Your task to perform on an android device: Is it going to rain tomorrow? Image 0: 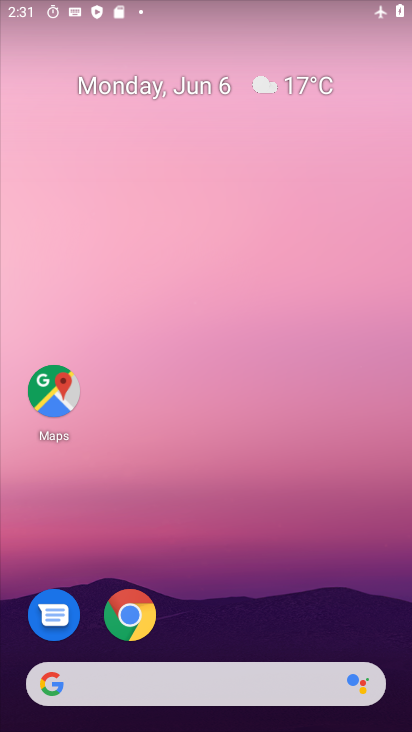
Step 0: drag from (206, 649) to (267, 255)
Your task to perform on an android device: Is it going to rain tomorrow? Image 1: 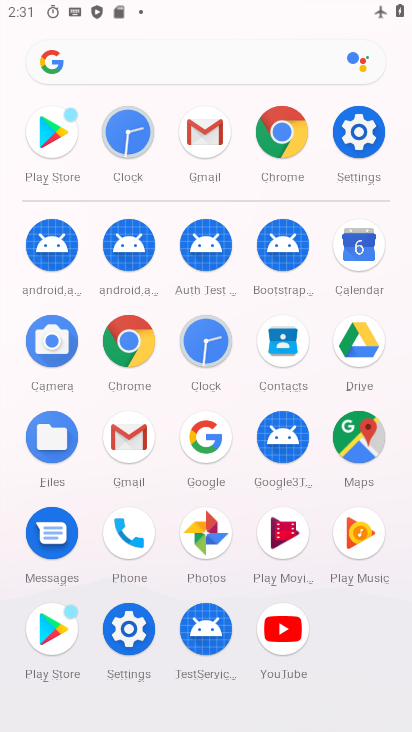
Step 1: click (361, 247)
Your task to perform on an android device: Is it going to rain tomorrow? Image 2: 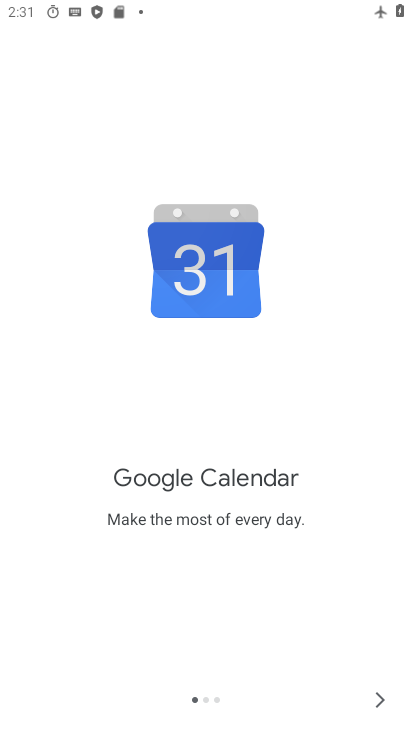
Step 2: click (374, 690)
Your task to perform on an android device: Is it going to rain tomorrow? Image 3: 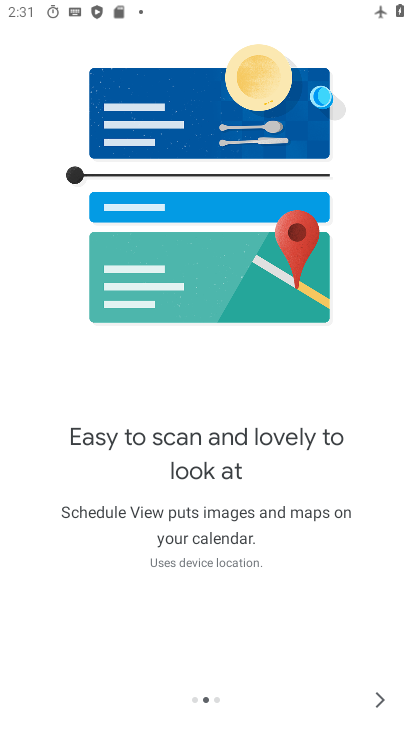
Step 3: click (373, 691)
Your task to perform on an android device: Is it going to rain tomorrow? Image 4: 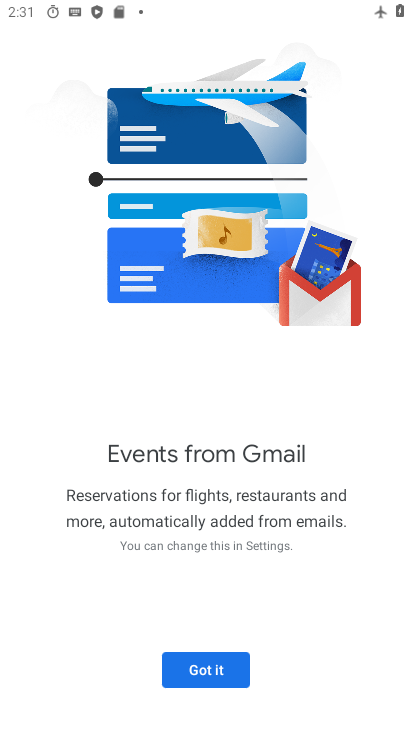
Step 4: click (199, 678)
Your task to perform on an android device: Is it going to rain tomorrow? Image 5: 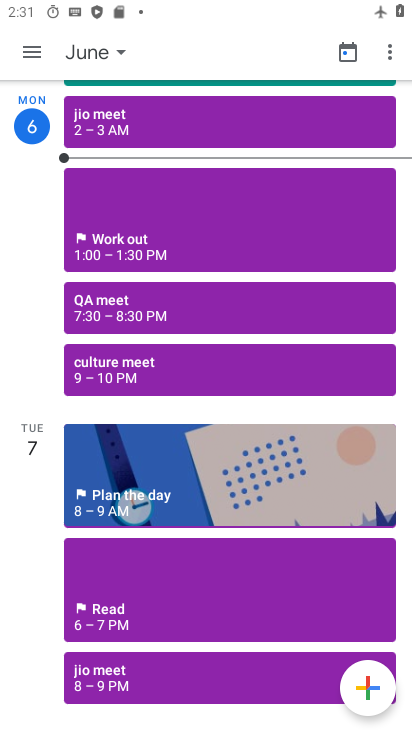
Step 5: press home button
Your task to perform on an android device: Is it going to rain tomorrow? Image 6: 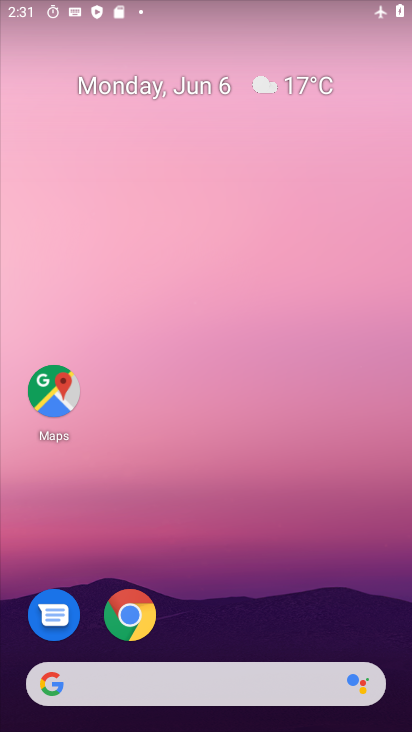
Step 6: click (298, 73)
Your task to perform on an android device: Is it going to rain tomorrow? Image 7: 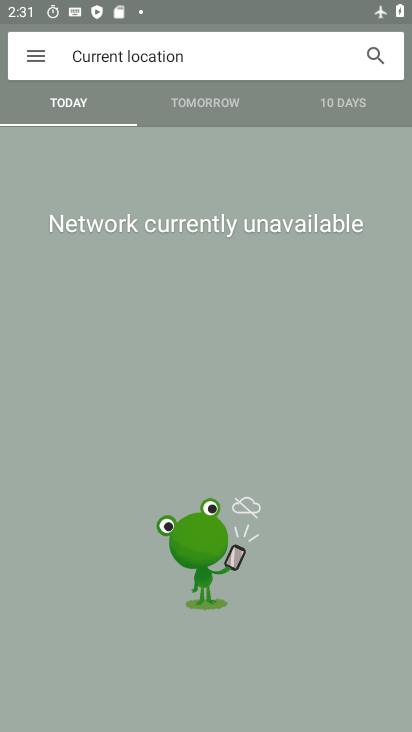
Step 7: task complete